Your task to perform on an android device: Go to display settings Image 0: 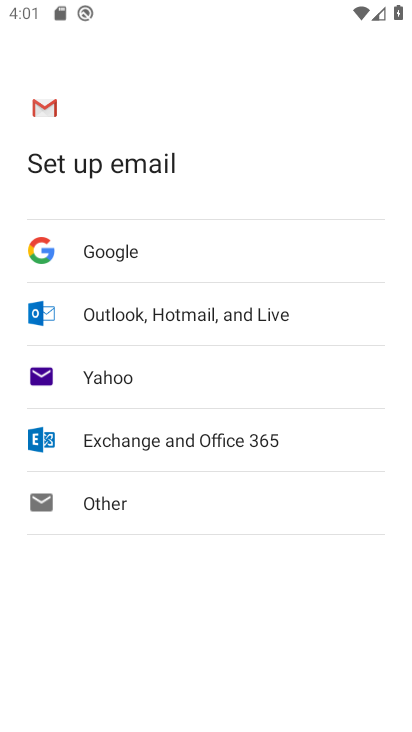
Step 0: press home button
Your task to perform on an android device: Go to display settings Image 1: 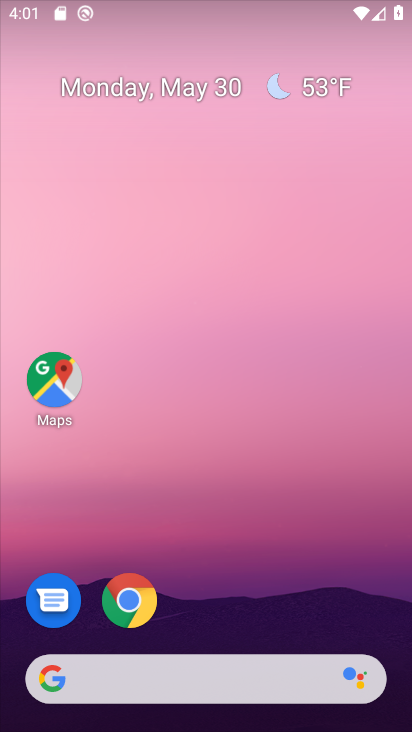
Step 1: drag from (375, 575) to (343, 1)
Your task to perform on an android device: Go to display settings Image 2: 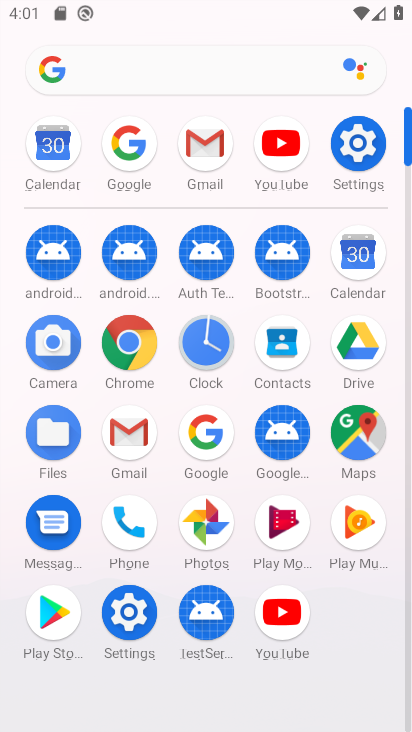
Step 2: click (359, 149)
Your task to perform on an android device: Go to display settings Image 3: 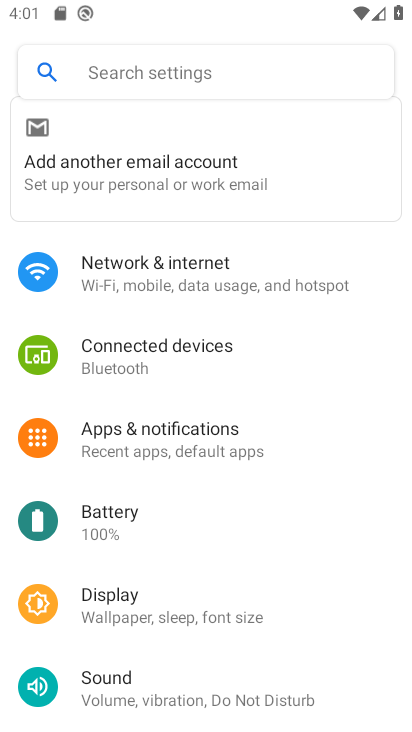
Step 3: drag from (251, 686) to (245, 171)
Your task to perform on an android device: Go to display settings Image 4: 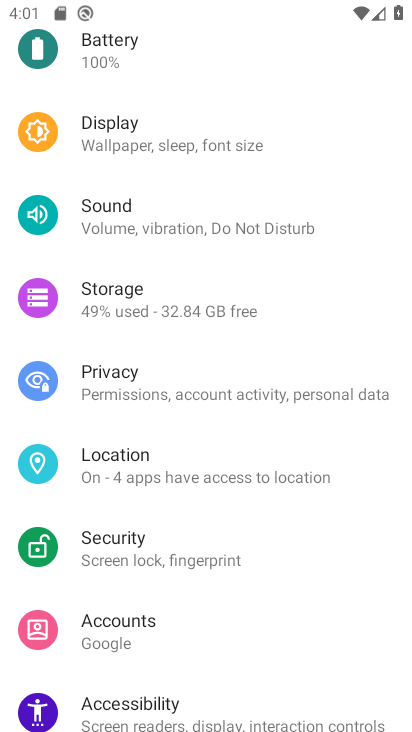
Step 4: click (125, 141)
Your task to perform on an android device: Go to display settings Image 5: 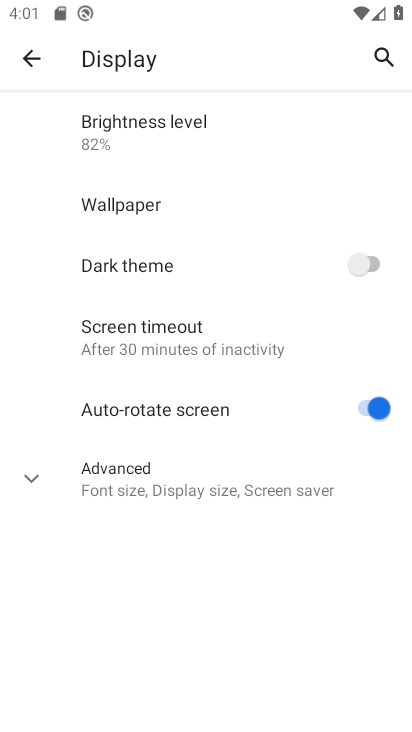
Step 5: task complete